Your task to perform on an android device: Search for sushi restaurants on Maps Image 0: 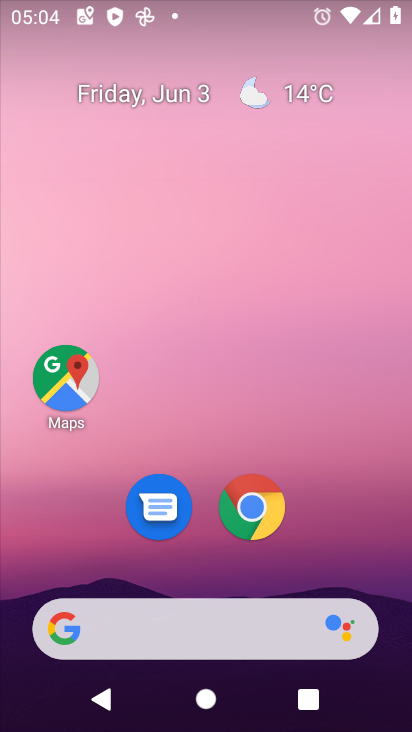
Step 0: click (81, 369)
Your task to perform on an android device: Search for sushi restaurants on Maps Image 1: 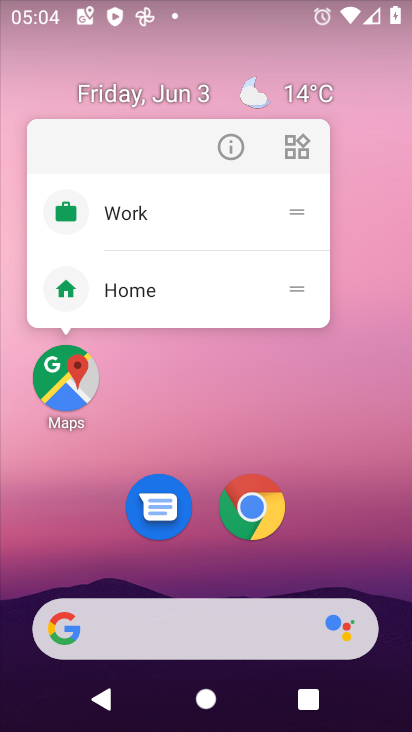
Step 1: click (79, 380)
Your task to perform on an android device: Search for sushi restaurants on Maps Image 2: 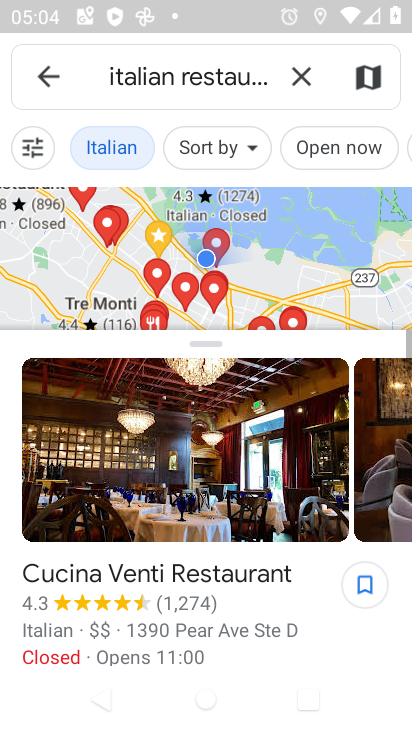
Step 2: click (263, 71)
Your task to perform on an android device: Search for sushi restaurants on Maps Image 3: 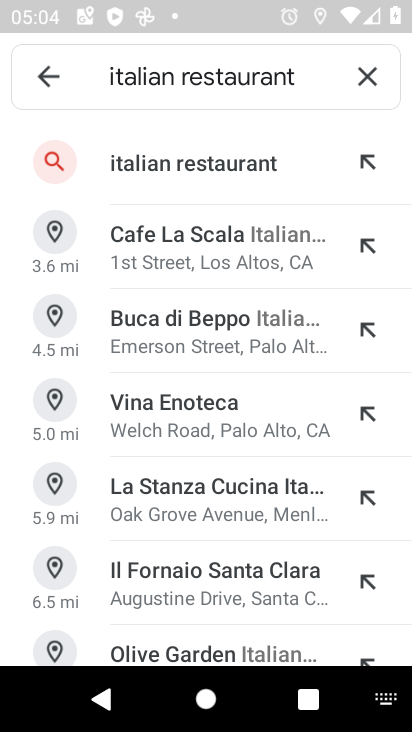
Step 3: click (368, 67)
Your task to perform on an android device: Search for sushi restaurants on Maps Image 4: 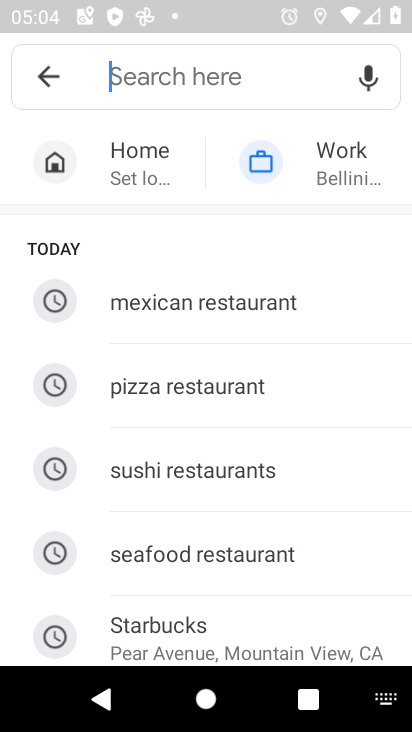
Step 4: click (239, 476)
Your task to perform on an android device: Search for sushi restaurants on Maps Image 5: 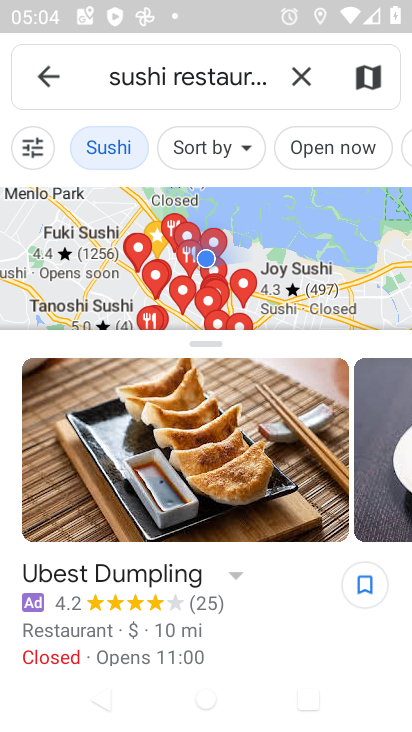
Step 5: task complete